Your task to perform on an android device: Go to Yahoo.com Image 0: 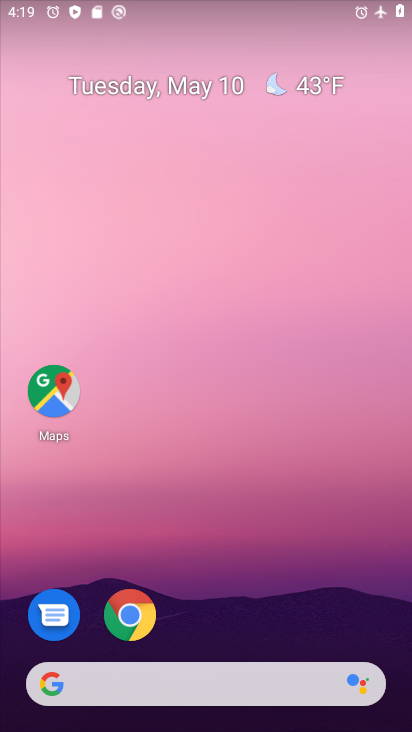
Step 0: drag from (228, 575) to (223, 6)
Your task to perform on an android device: Go to Yahoo.com Image 1: 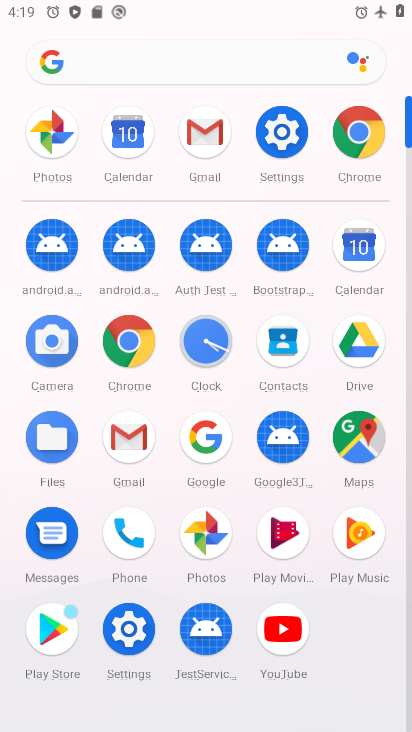
Step 1: drag from (10, 534) to (6, 274)
Your task to perform on an android device: Go to Yahoo.com Image 2: 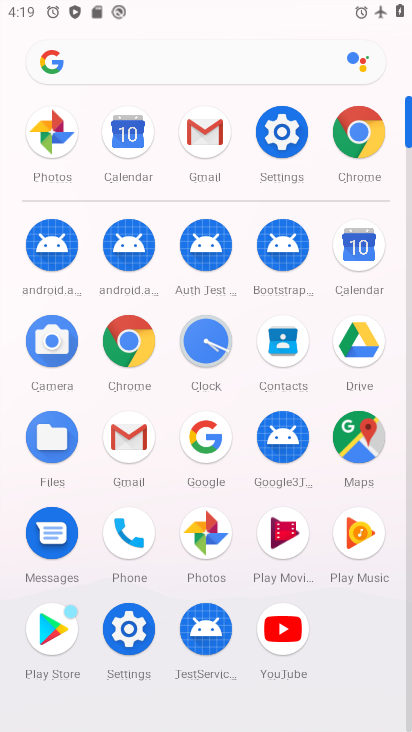
Step 2: click (132, 335)
Your task to perform on an android device: Go to Yahoo.com Image 3: 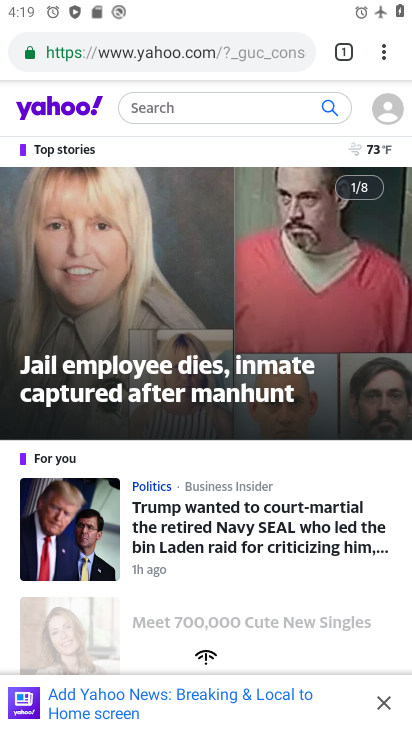
Step 3: click (179, 43)
Your task to perform on an android device: Go to Yahoo.com Image 4: 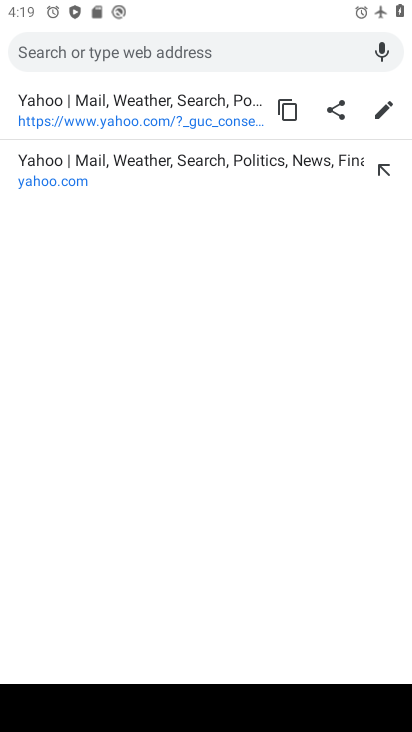
Step 4: type "Yahoo.com"
Your task to perform on an android device: Go to Yahoo.com Image 5: 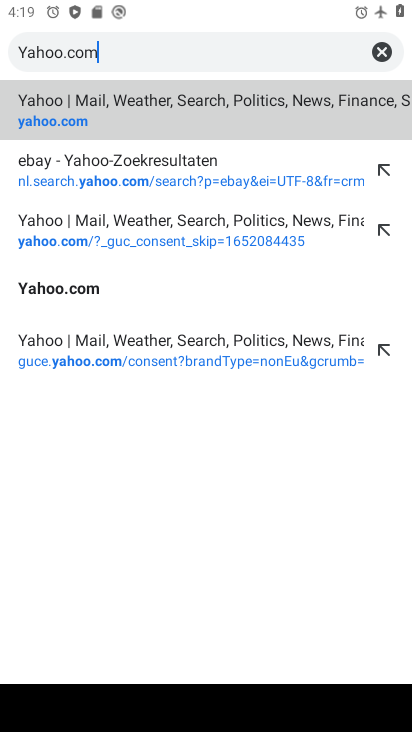
Step 5: type ""
Your task to perform on an android device: Go to Yahoo.com Image 6: 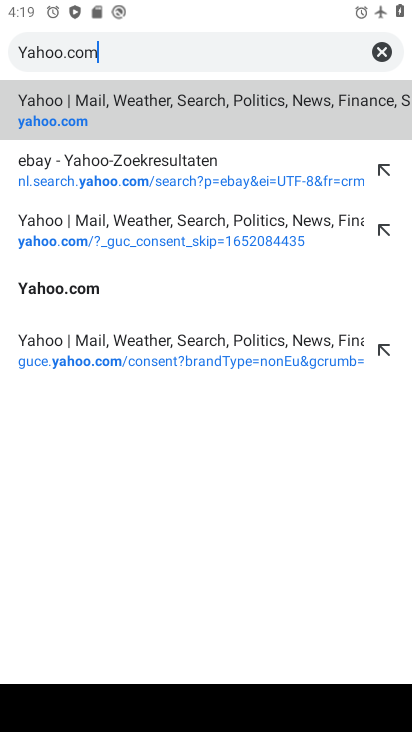
Step 6: click (130, 112)
Your task to perform on an android device: Go to Yahoo.com Image 7: 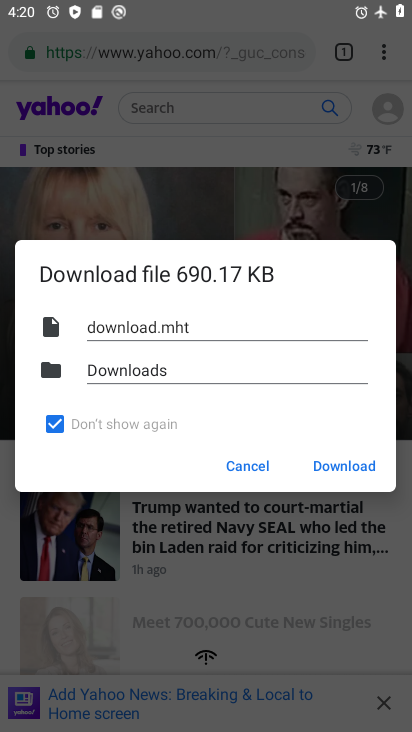
Step 7: click (251, 458)
Your task to perform on an android device: Go to Yahoo.com Image 8: 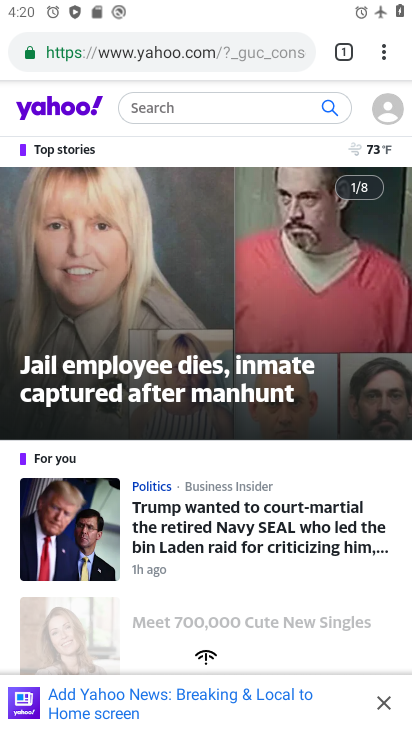
Step 8: click (63, 112)
Your task to perform on an android device: Go to Yahoo.com Image 9: 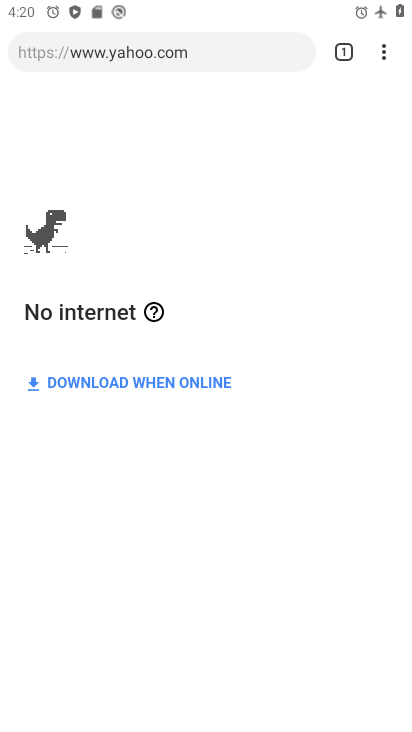
Step 9: task complete